Your task to perform on an android device: change the clock display to digital Image 0: 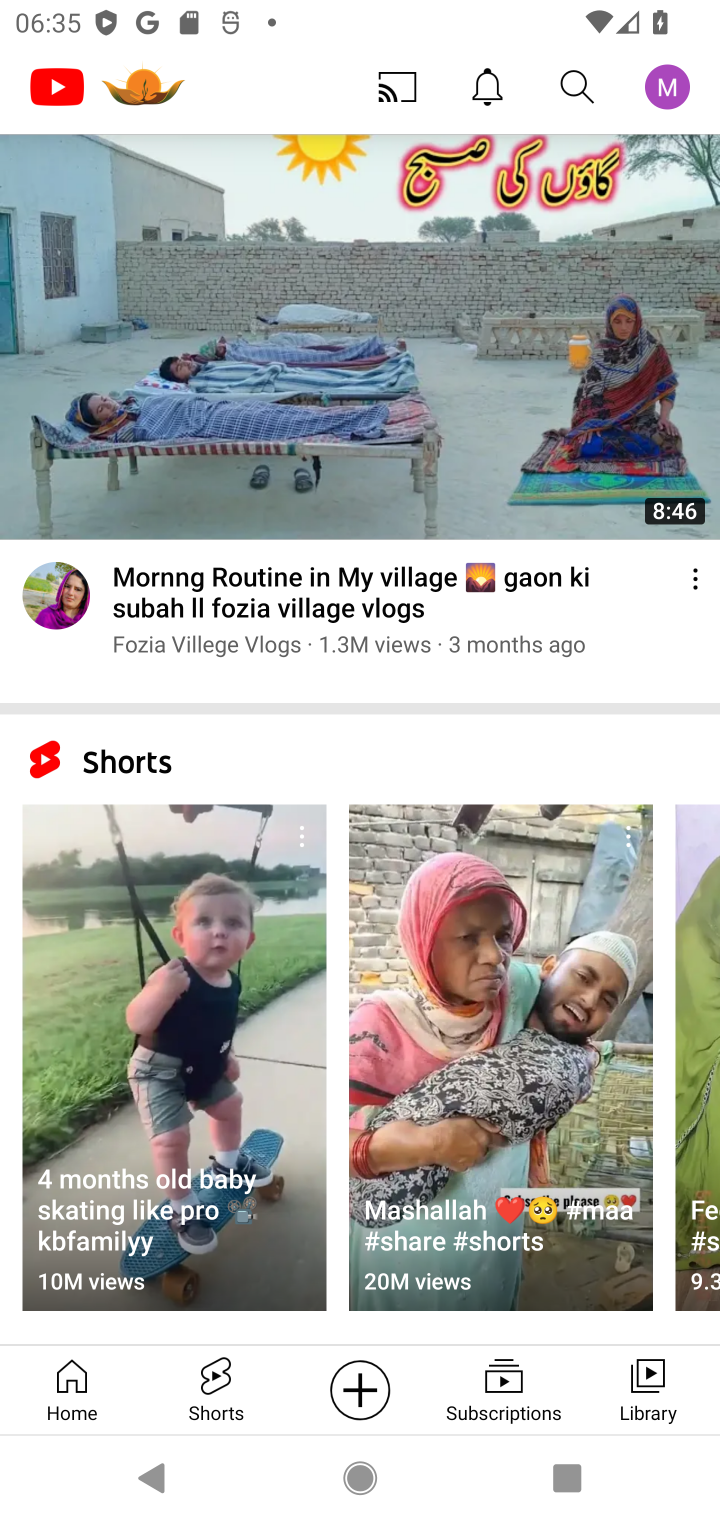
Step 0: press home button
Your task to perform on an android device: change the clock display to digital Image 1: 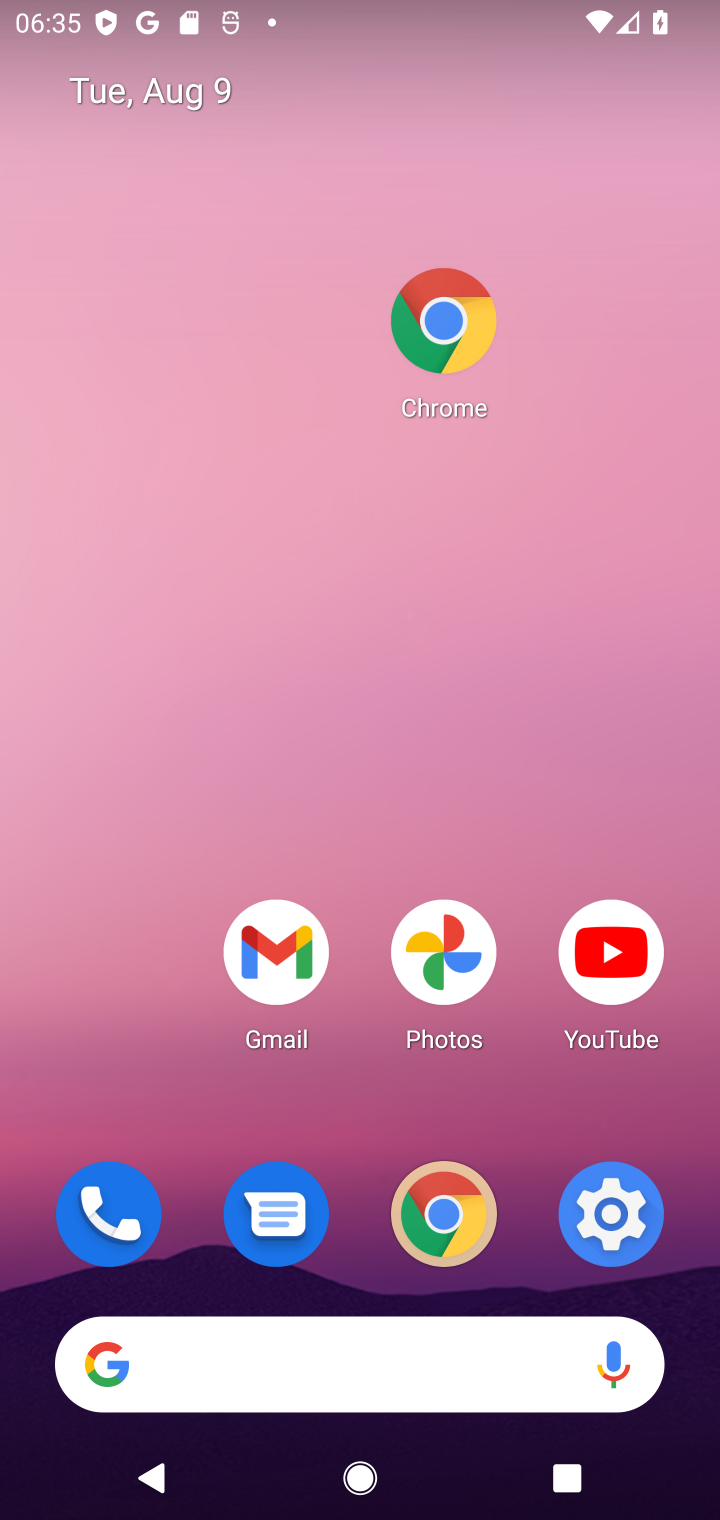
Step 1: drag from (450, 1421) to (480, 487)
Your task to perform on an android device: change the clock display to digital Image 2: 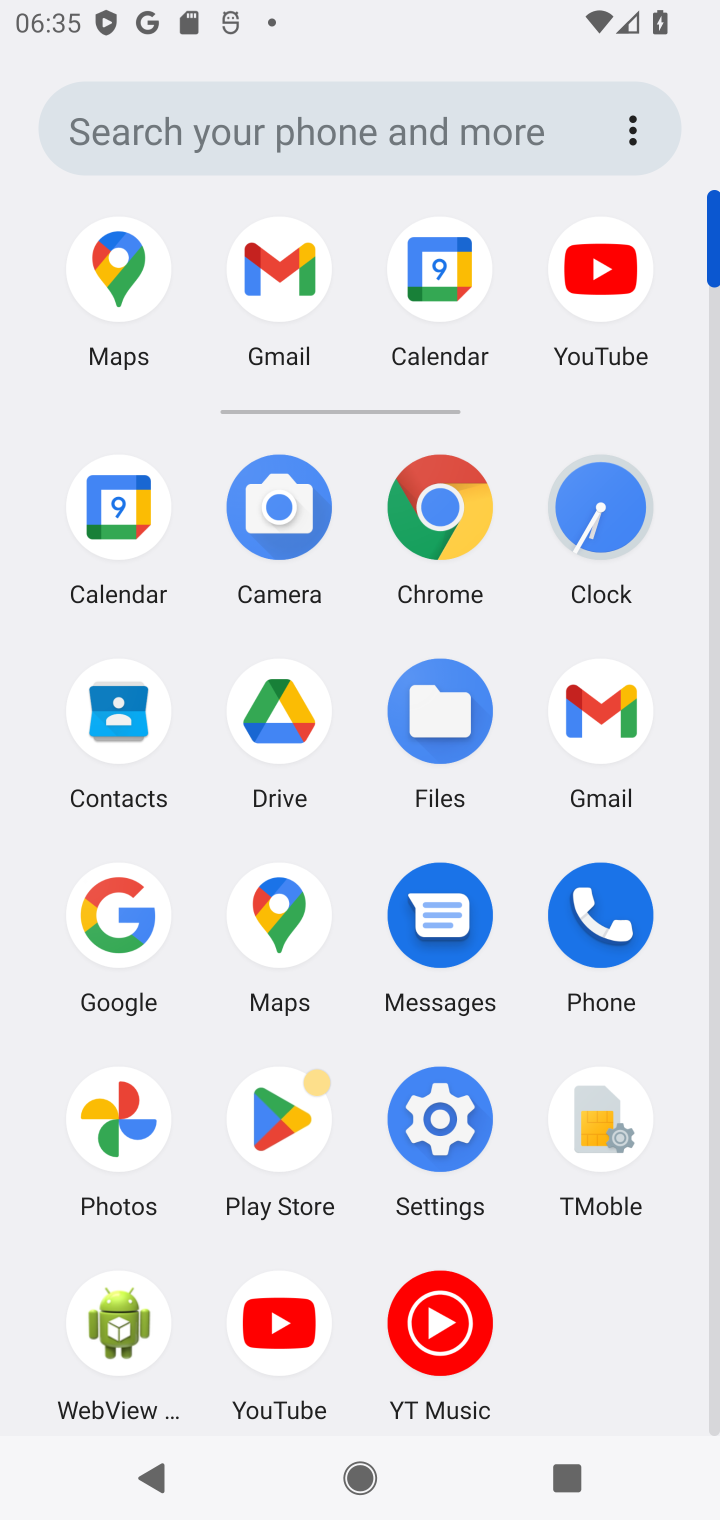
Step 2: click (584, 516)
Your task to perform on an android device: change the clock display to digital Image 3: 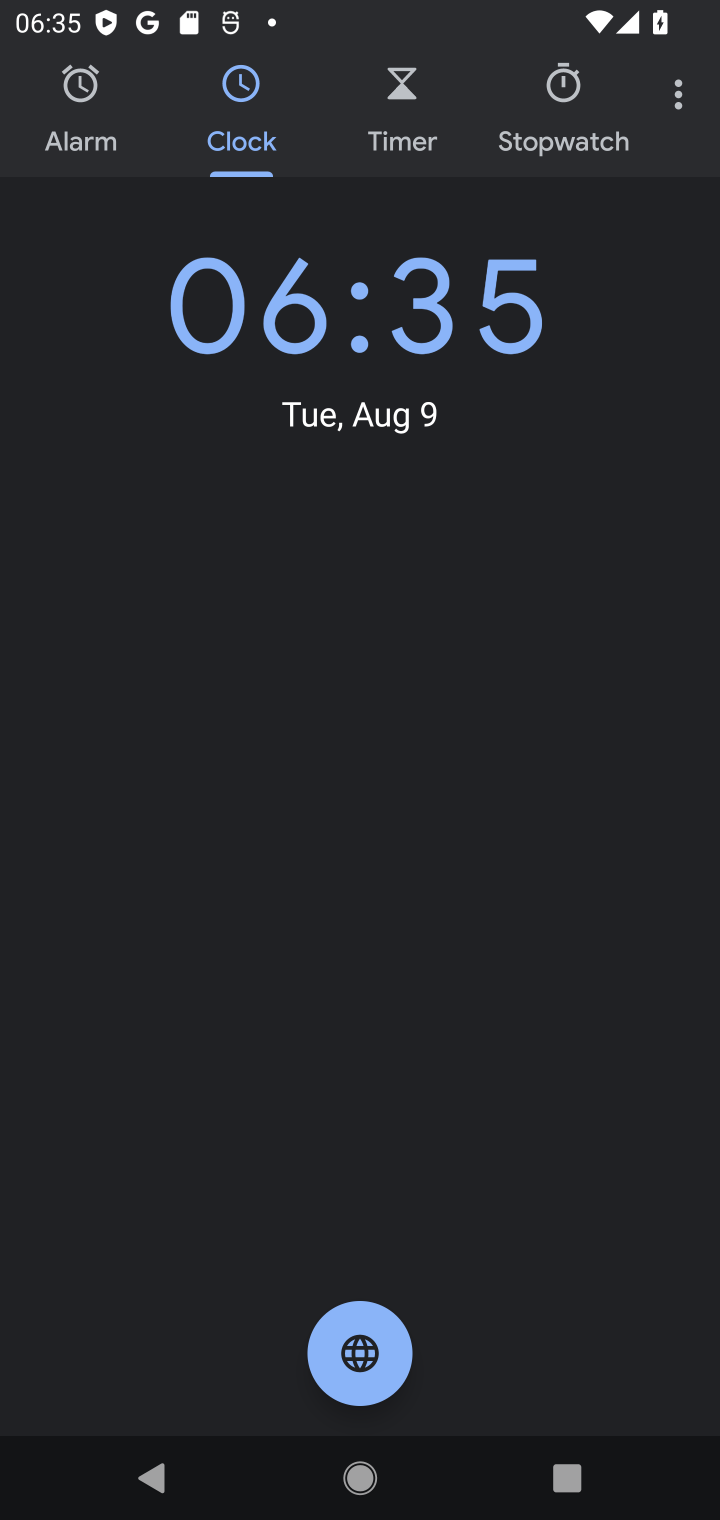
Step 3: click (688, 105)
Your task to perform on an android device: change the clock display to digital Image 4: 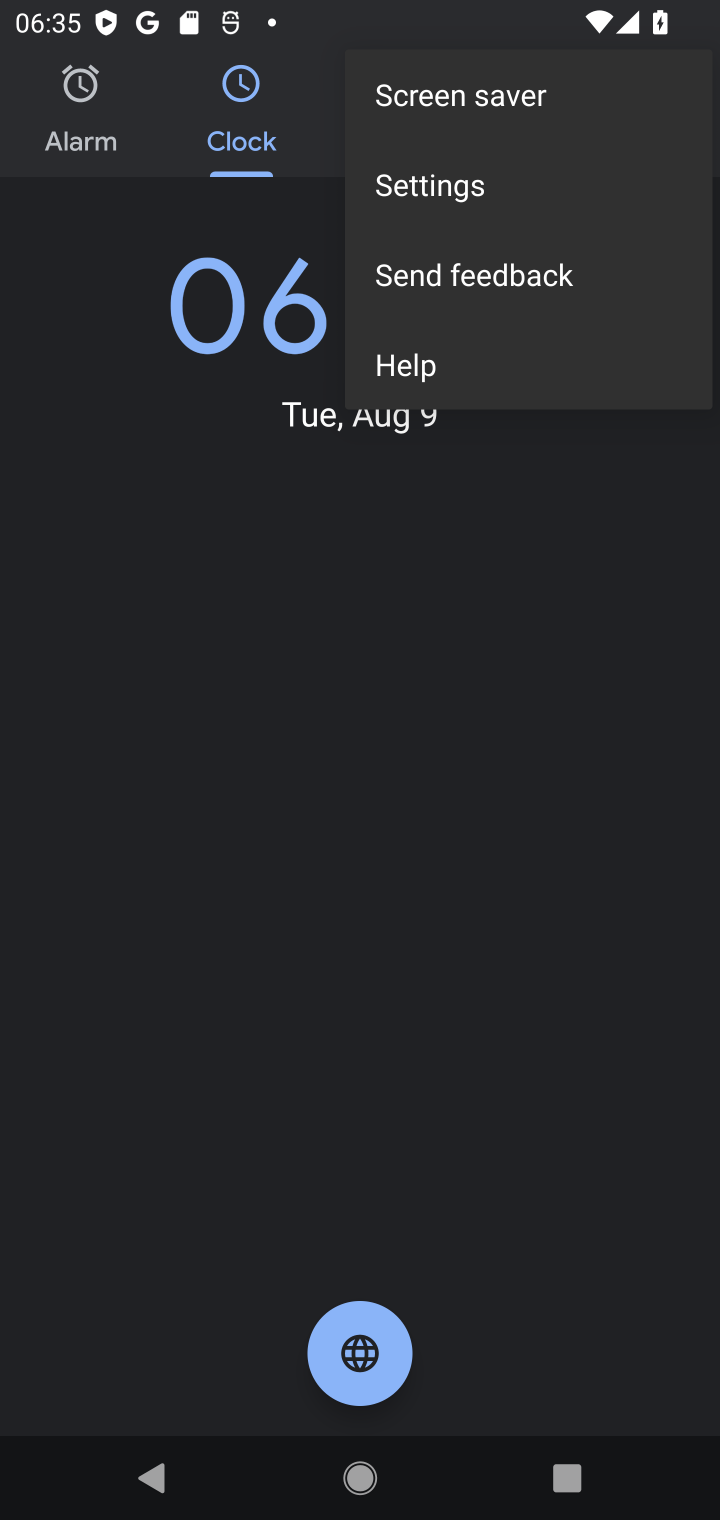
Step 4: click (458, 198)
Your task to perform on an android device: change the clock display to digital Image 5: 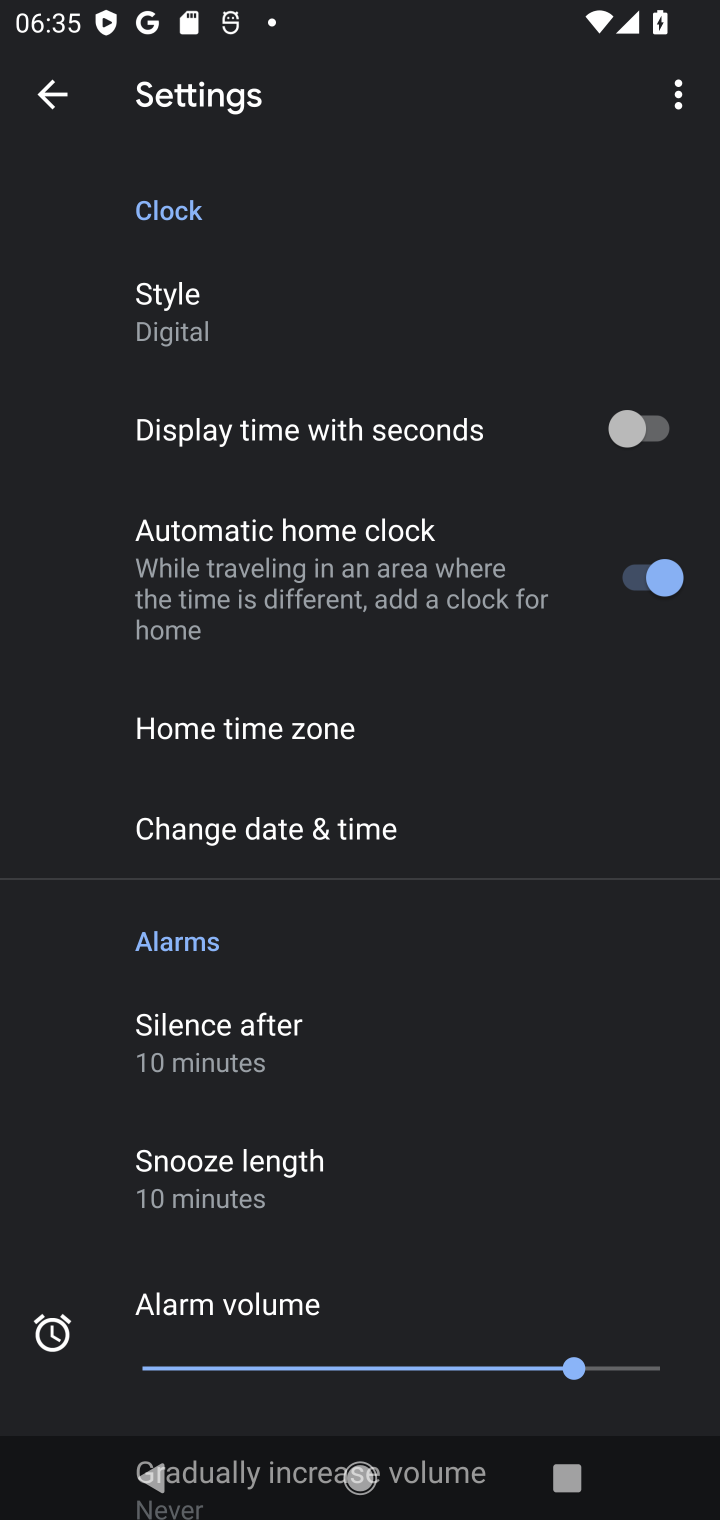
Step 5: click (207, 304)
Your task to perform on an android device: change the clock display to digital Image 6: 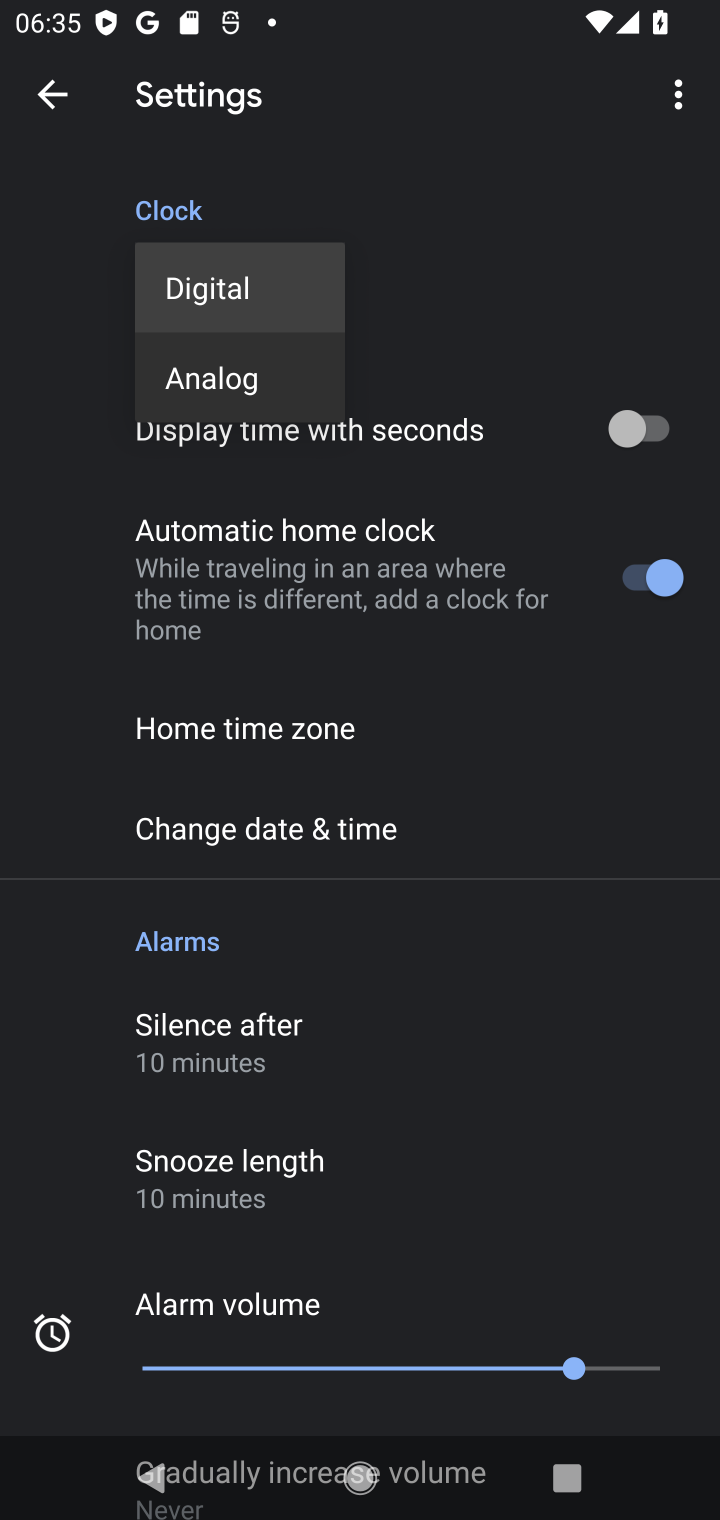
Step 6: click (222, 297)
Your task to perform on an android device: change the clock display to digital Image 7: 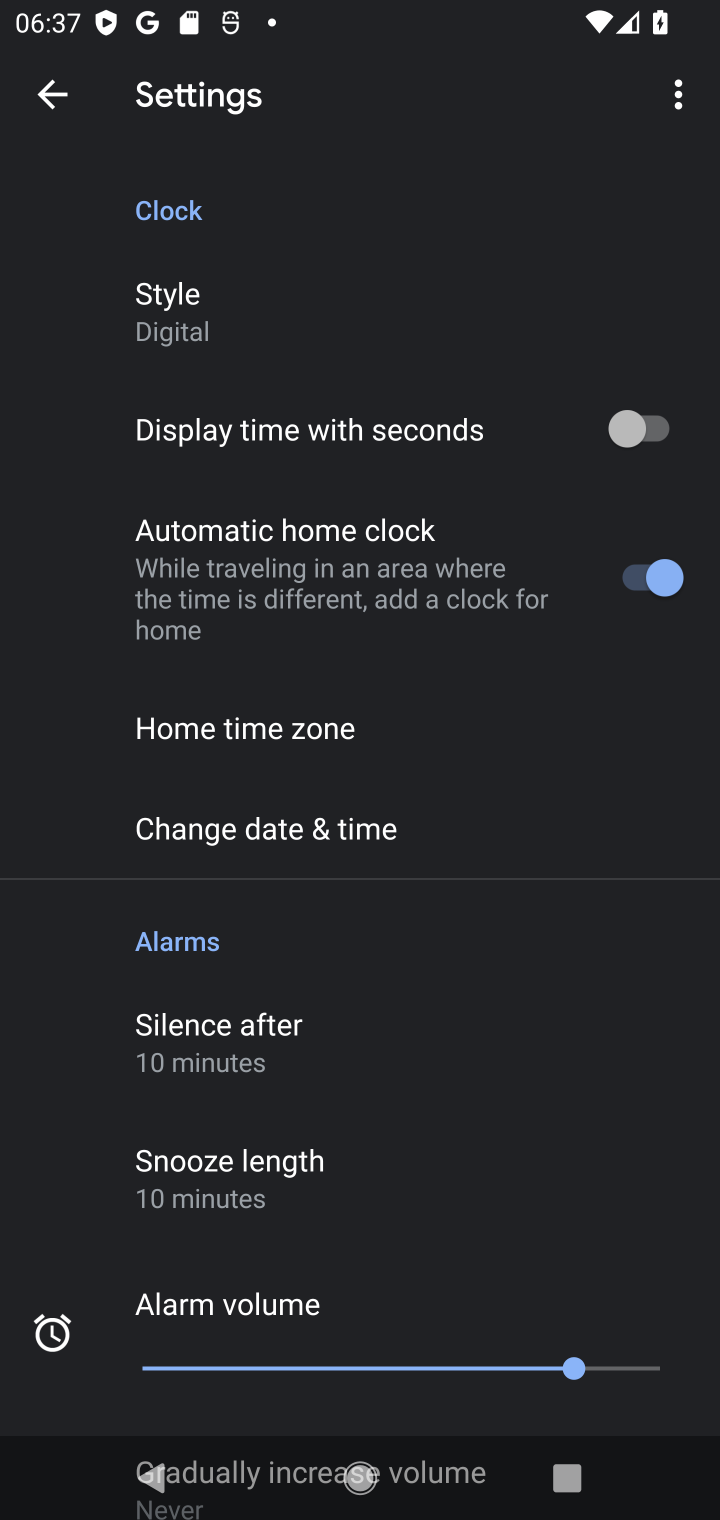
Step 7: task complete